Your task to perform on an android device: turn smart compose on in the gmail app Image 0: 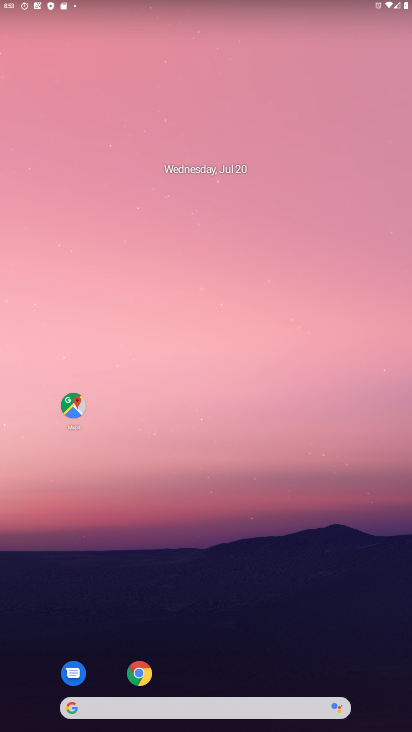
Step 0: drag from (211, 576) to (202, 194)
Your task to perform on an android device: turn smart compose on in the gmail app Image 1: 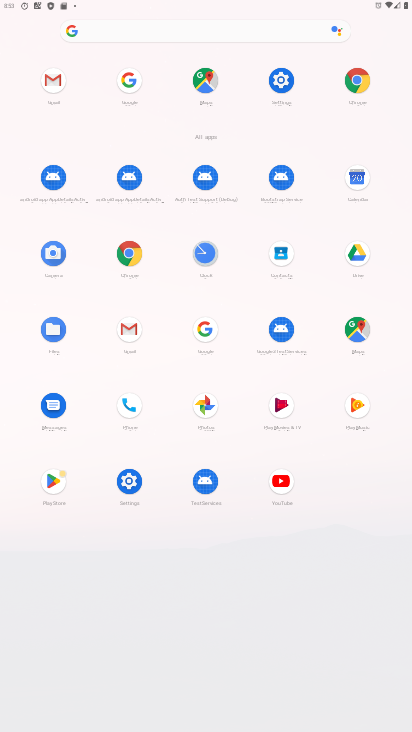
Step 1: click (128, 330)
Your task to perform on an android device: turn smart compose on in the gmail app Image 2: 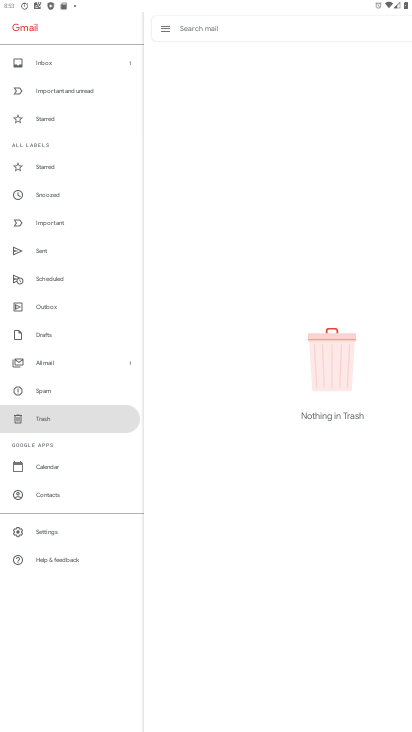
Step 2: click (43, 540)
Your task to perform on an android device: turn smart compose on in the gmail app Image 3: 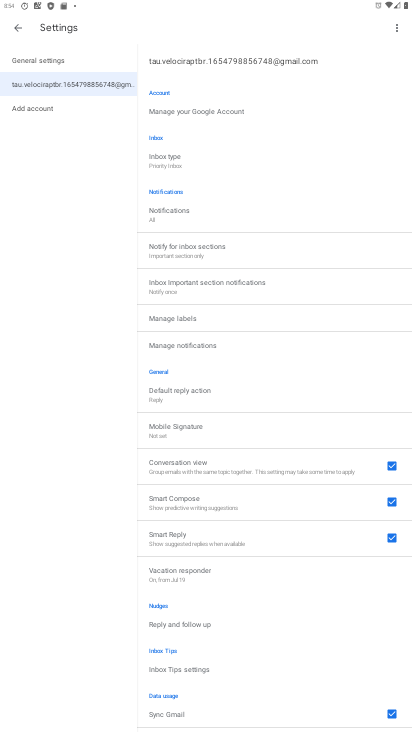
Step 3: task complete